Your task to perform on an android device: turn vacation reply on in the gmail app Image 0: 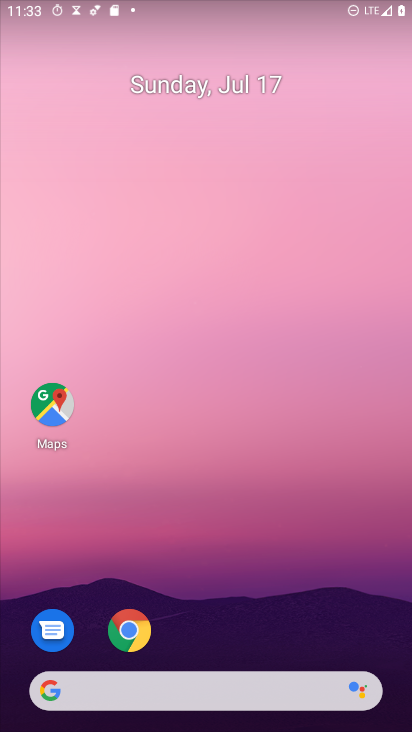
Step 0: drag from (313, 687) to (242, 93)
Your task to perform on an android device: turn vacation reply on in the gmail app Image 1: 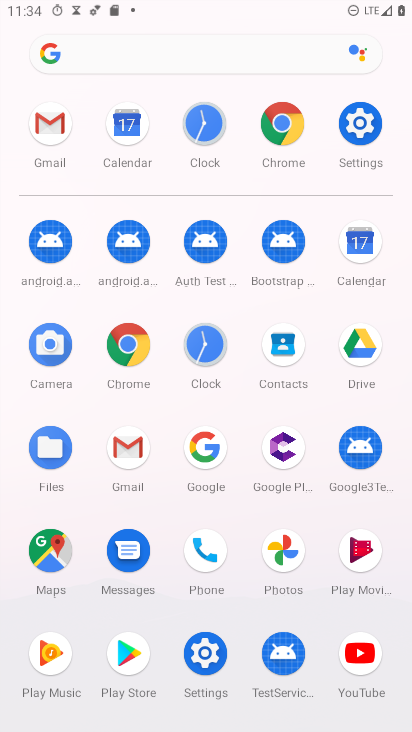
Step 1: click (131, 452)
Your task to perform on an android device: turn vacation reply on in the gmail app Image 2: 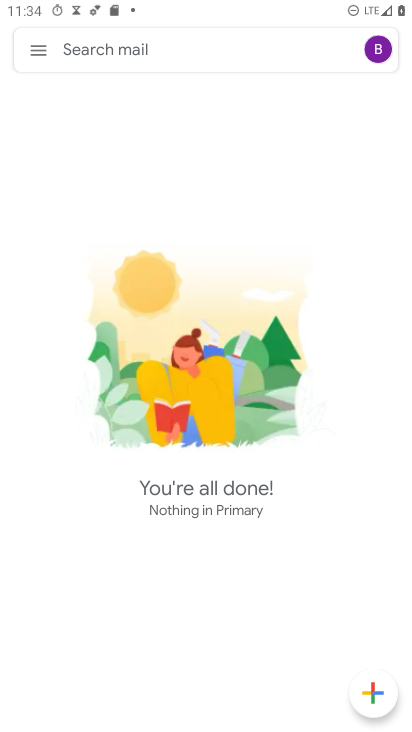
Step 2: click (38, 51)
Your task to perform on an android device: turn vacation reply on in the gmail app Image 3: 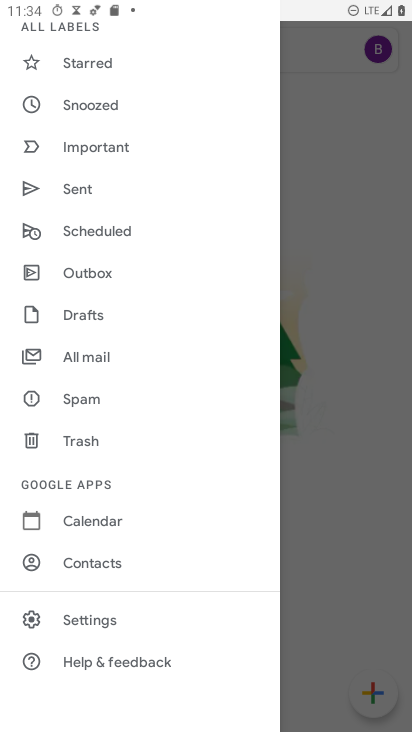
Step 3: click (129, 624)
Your task to perform on an android device: turn vacation reply on in the gmail app Image 4: 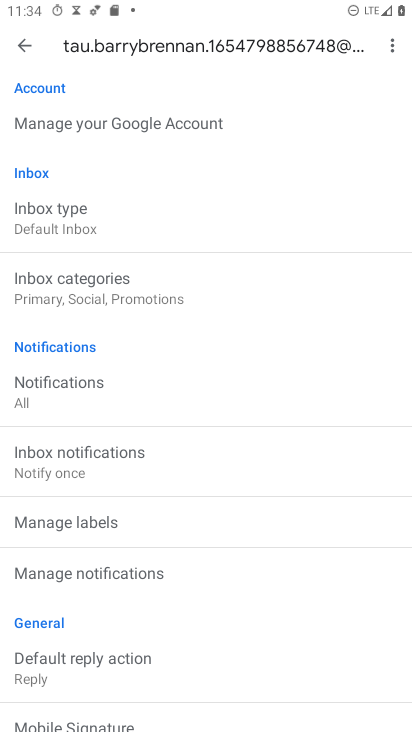
Step 4: drag from (147, 650) to (173, 164)
Your task to perform on an android device: turn vacation reply on in the gmail app Image 5: 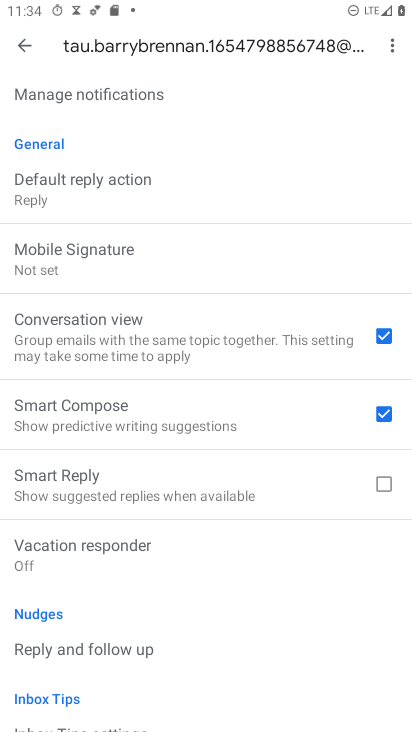
Step 5: drag from (133, 662) to (213, 267)
Your task to perform on an android device: turn vacation reply on in the gmail app Image 6: 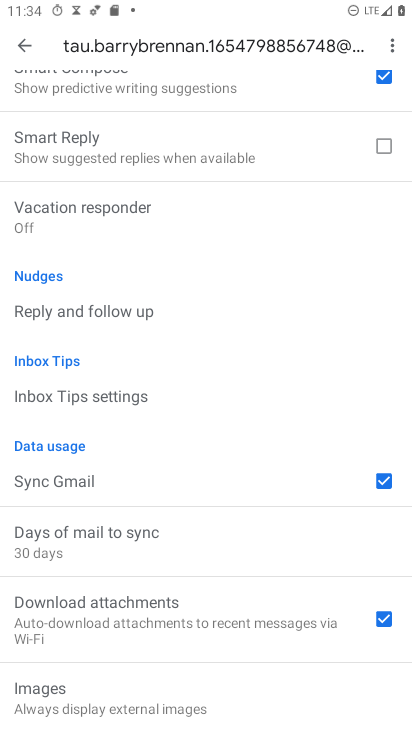
Step 6: click (135, 205)
Your task to perform on an android device: turn vacation reply on in the gmail app Image 7: 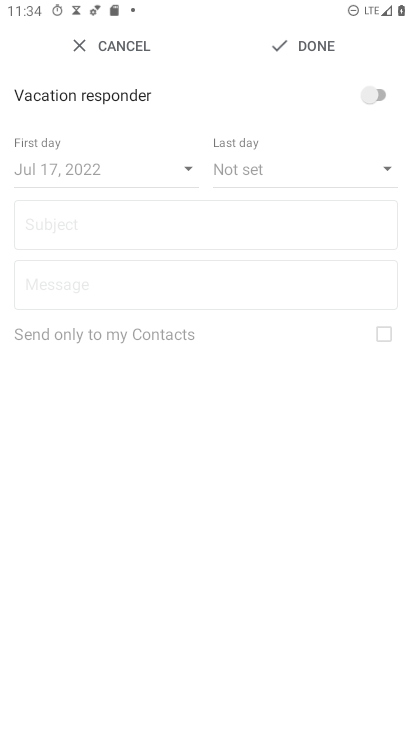
Step 7: click (312, 45)
Your task to perform on an android device: turn vacation reply on in the gmail app Image 8: 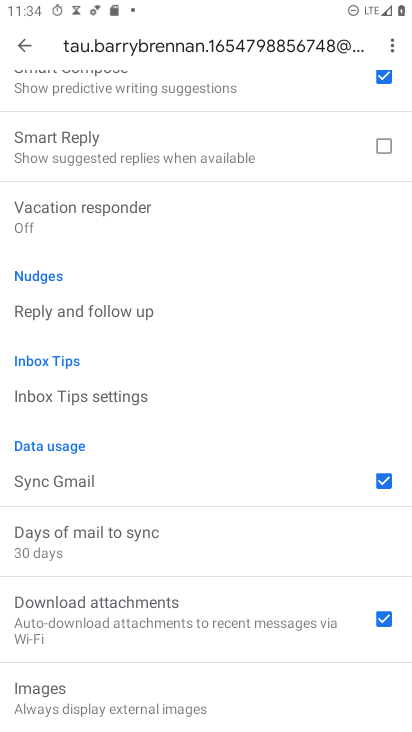
Step 8: task complete